Your task to perform on an android device: Go to internet settings Image 0: 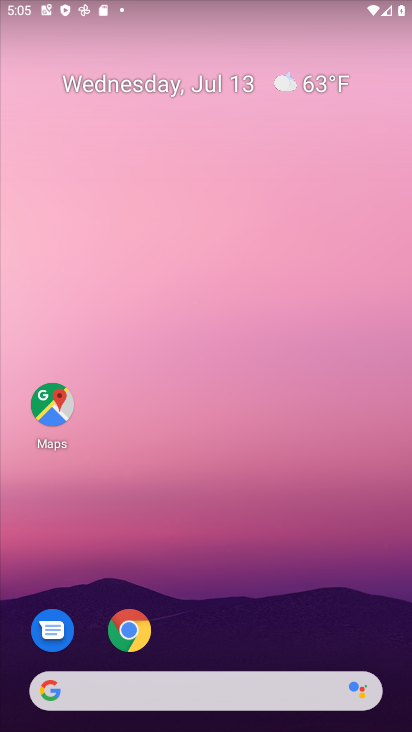
Step 0: press home button
Your task to perform on an android device: Go to internet settings Image 1: 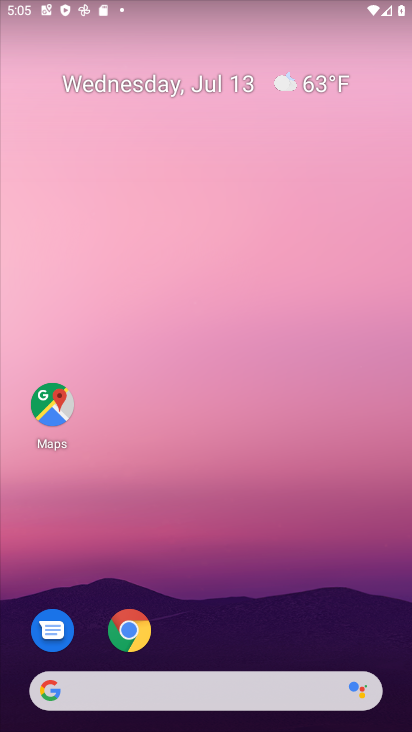
Step 1: drag from (240, 645) to (269, 20)
Your task to perform on an android device: Go to internet settings Image 2: 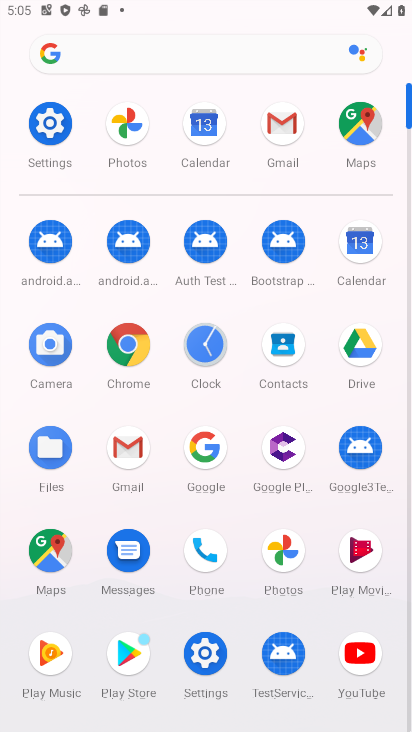
Step 2: click (49, 119)
Your task to perform on an android device: Go to internet settings Image 3: 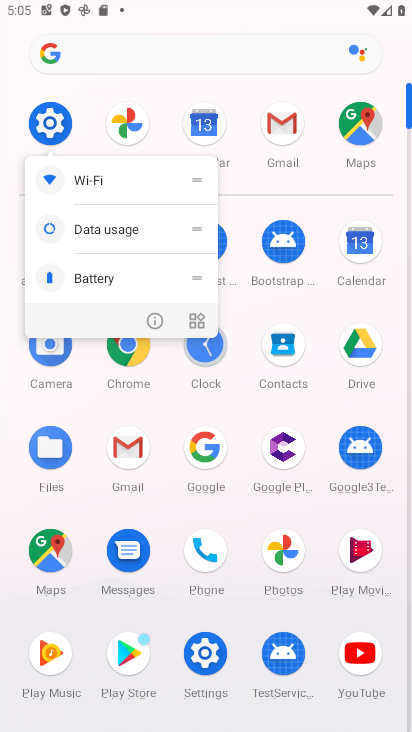
Step 3: click (49, 119)
Your task to perform on an android device: Go to internet settings Image 4: 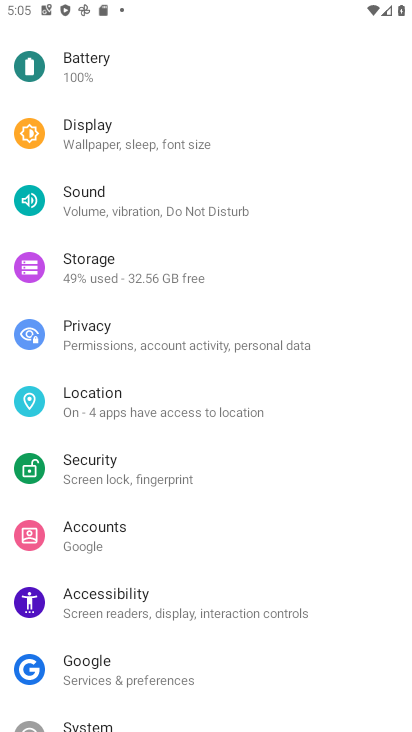
Step 4: drag from (238, 99) to (237, 620)
Your task to perform on an android device: Go to internet settings Image 5: 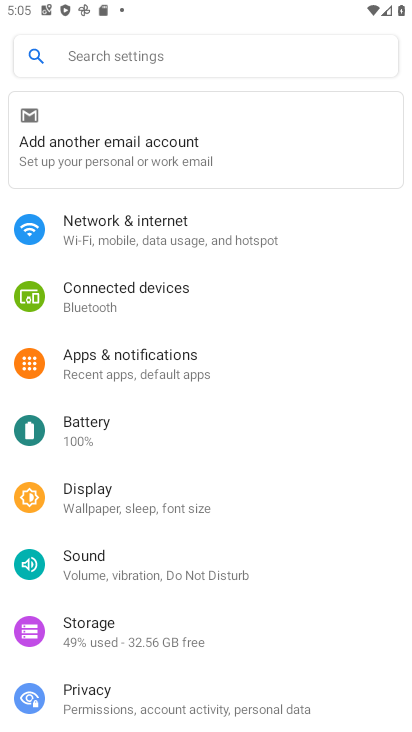
Step 5: click (108, 227)
Your task to perform on an android device: Go to internet settings Image 6: 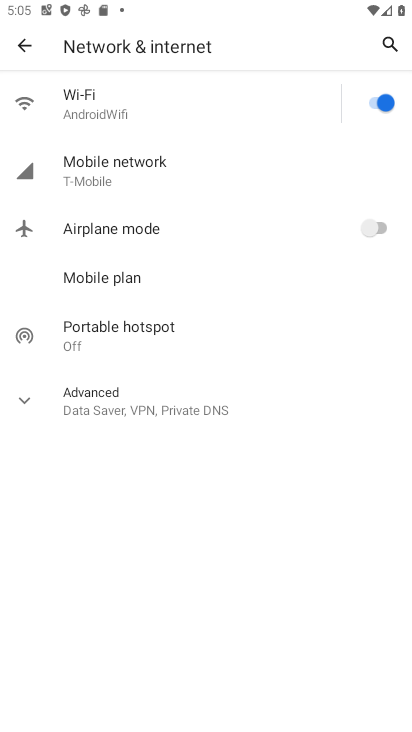
Step 6: task complete